Your task to perform on an android device: visit the assistant section in the google photos Image 0: 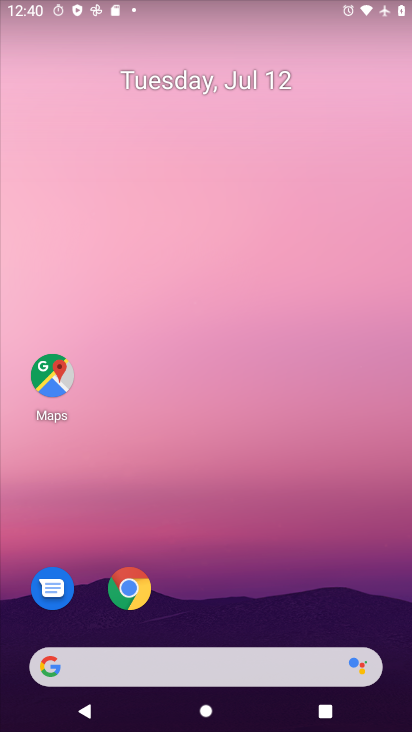
Step 0: drag from (244, 663) to (356, 77)
Your task to perform on an android device: visit the assistant section in the google photos Image 1: 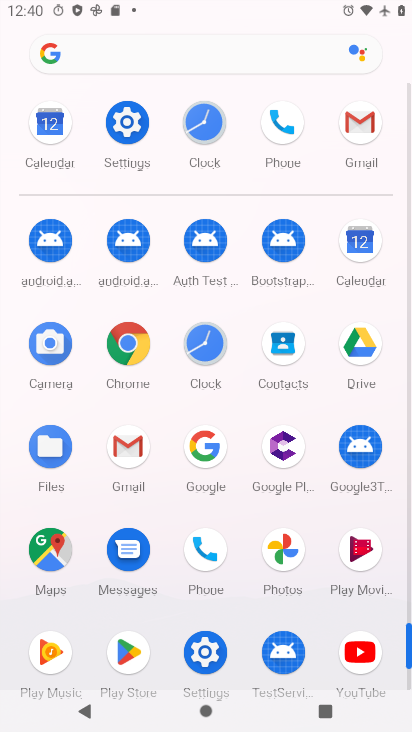
Step 1: click (295, 535)
Your task to perform on an android device: visit the assistant section in the google photos Image 2: 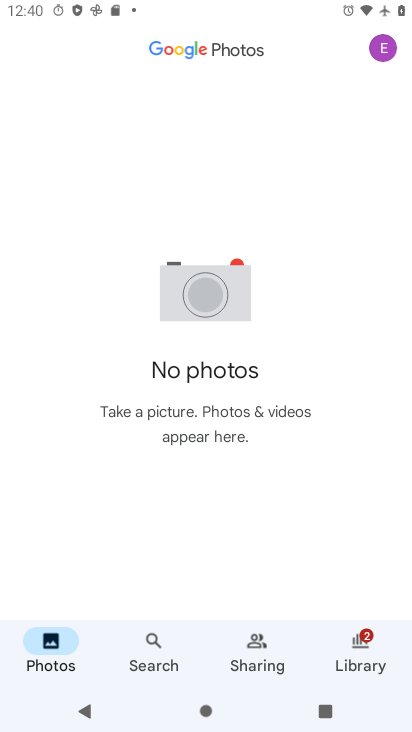
Step 2: click (387, 50)
Your task to perform on an android device: visit the assistant section in the google photos Image 3: 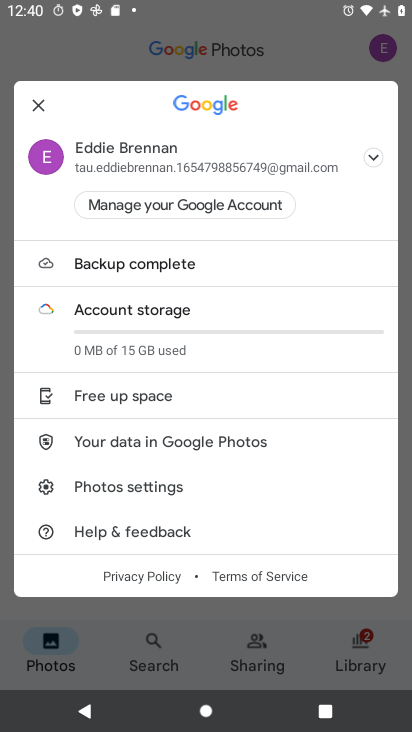
Step 3: click (170, 492)
Your task to perform on an android device: visit the assistant section in the google photos Image 4: 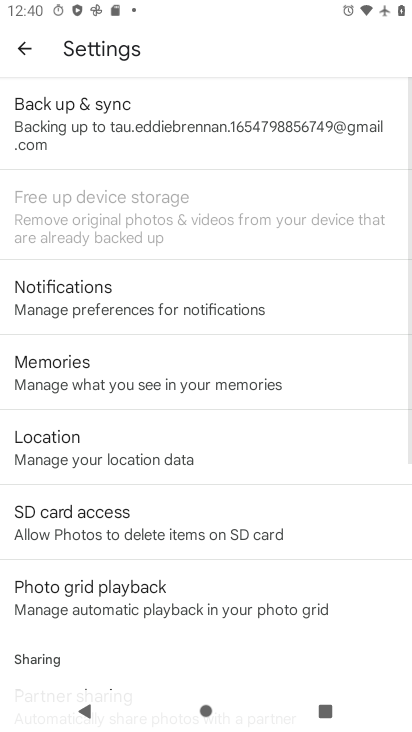
Step 4: task complete